Your task to perform on an android device: Open Google Chrome Image 0: 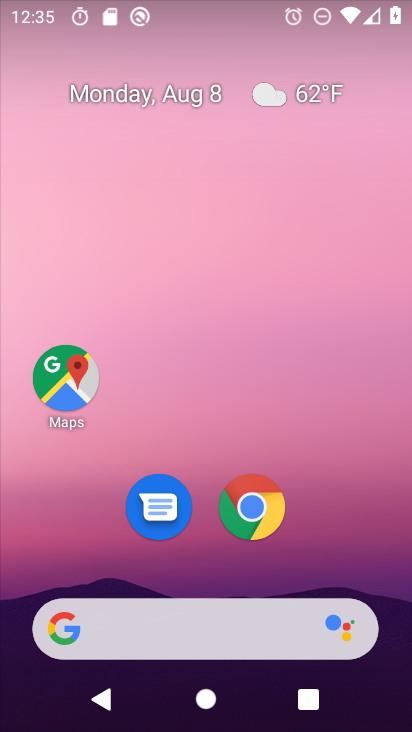
Step 0: drag from (363, 383) to (344, 2)
Your task to perform on an android device: Open Google Chrome Image 1: 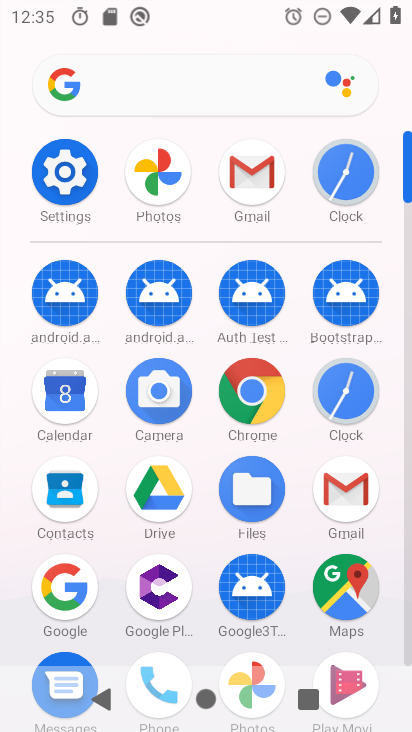
Step 1: click (258, 397)
Your task to perform on an android device: Open Google Chrome Image 2: 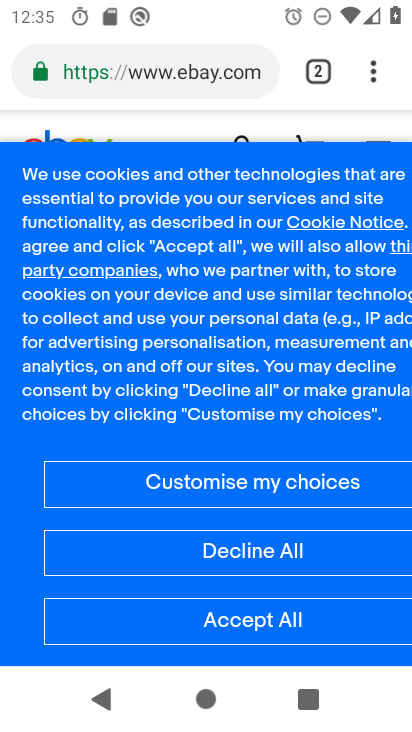
Step 2: task complete